Your task to perform on an android device: Go to CNN.com Image 0: 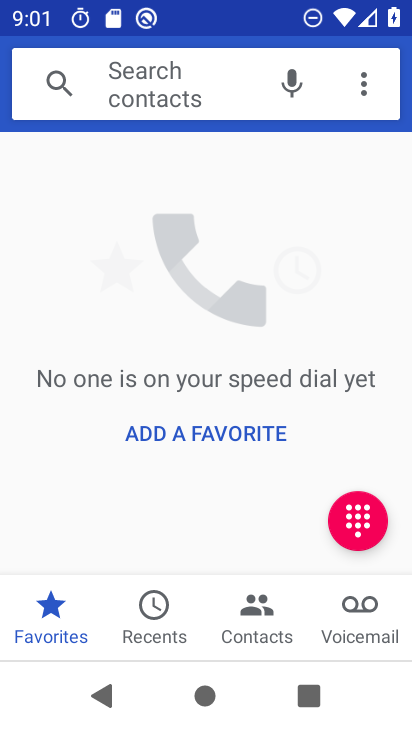
Step 0: press home button
Your task to perform on an android device: Go to CNN.com Image 1: 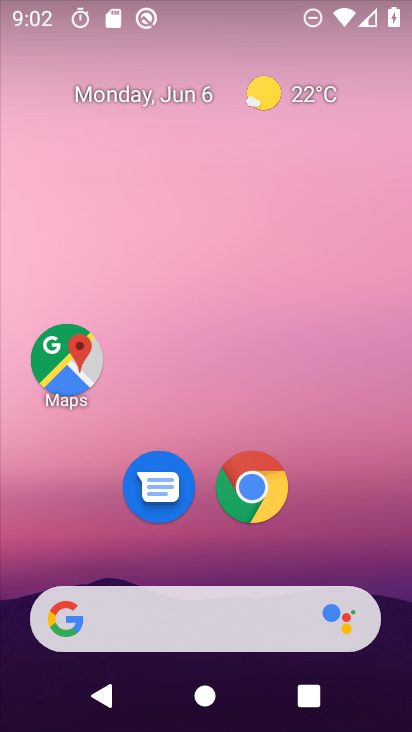
Step 1: drag from (385, 617) to (289, 26)
Your task to perform on an android device: Go to CNN.com Image 2: 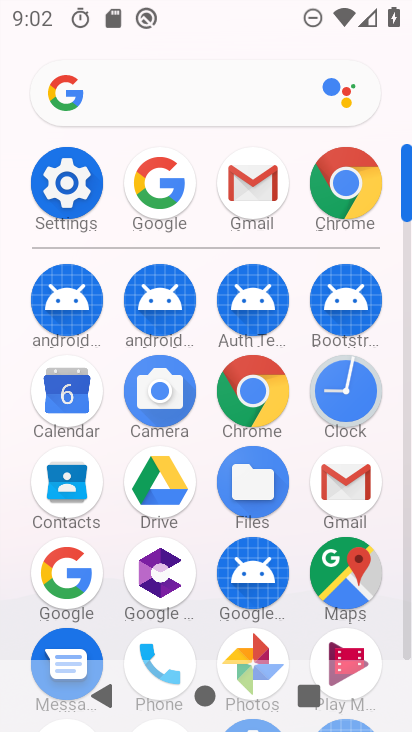
Step 2: drag from (327, 153) to (304, 77)
Your task to perform on an android device: Go to CNN.com Image 3: 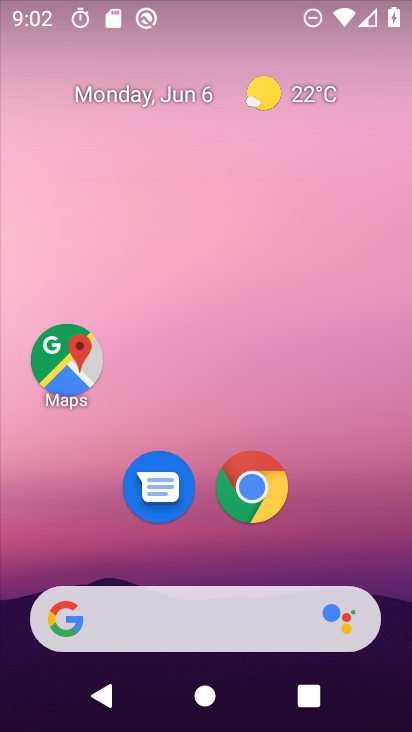
Step 3: drag from (404, 621) to (30, 99)
Your task to perform on an android device: Go to CNN.com Image 4: 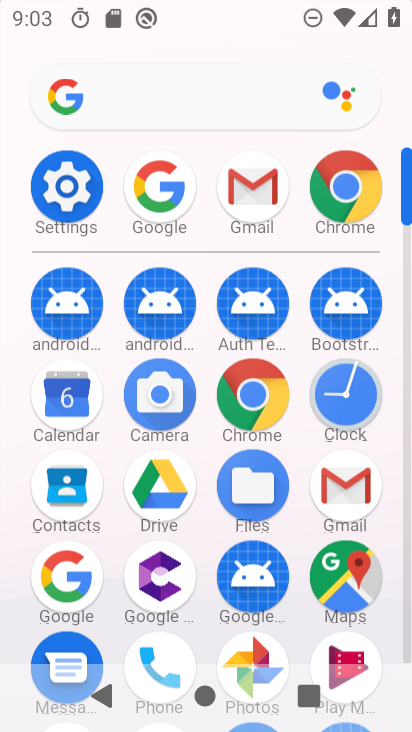
Step 4: click (156, 198)
Your task to perform on an android device: Go to CNN.com Image 5: 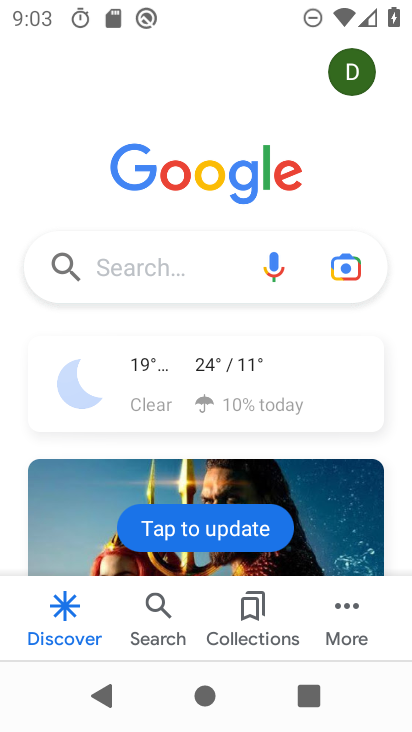
Step 5: click (143, 255)
Your task to perform on an android device: Go to CNN.com Image 6: 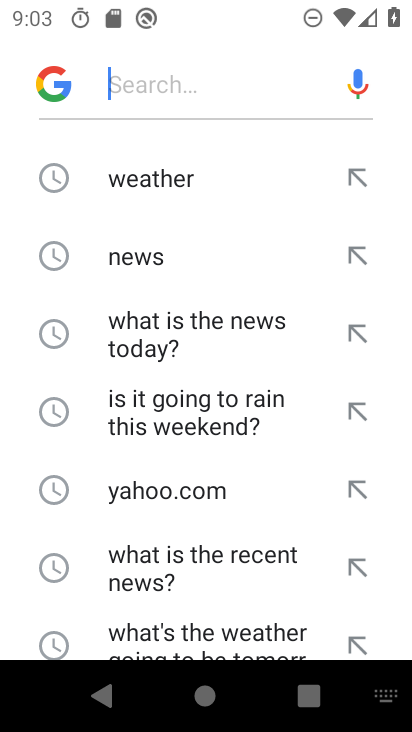
Step 6: drag from (126, 573) to (172, 39)
Your task to perform on an android device: Go to CNN.com Image 7: 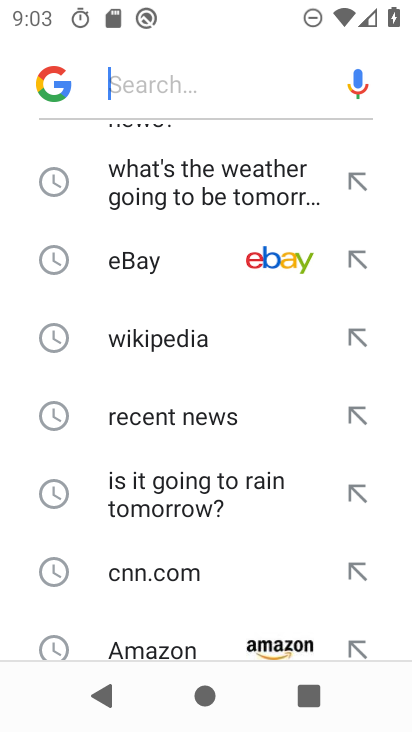
Step 7: click (158, 583)
Your task to perform on an android device: Go to CNN.com Image 8: 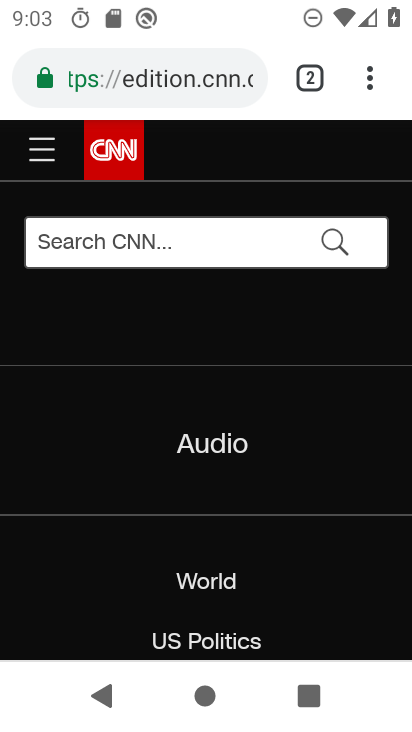
Step 8: task complete